Your task to perform on an android device: Go to privacy settings Image 0: 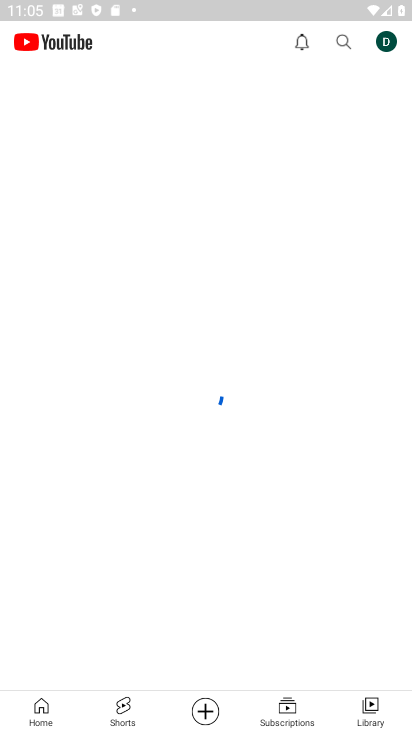
Step 0: press home button
Your task to perform on an android device: Go to privacy settings Image 1: 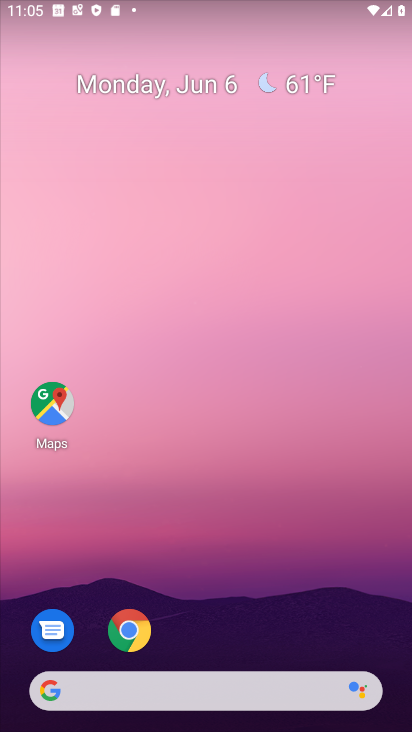
Step 1: drag from (338, 614) to (314, 199)
Your task to perform on an android device: Go to privacy settings Image 2: 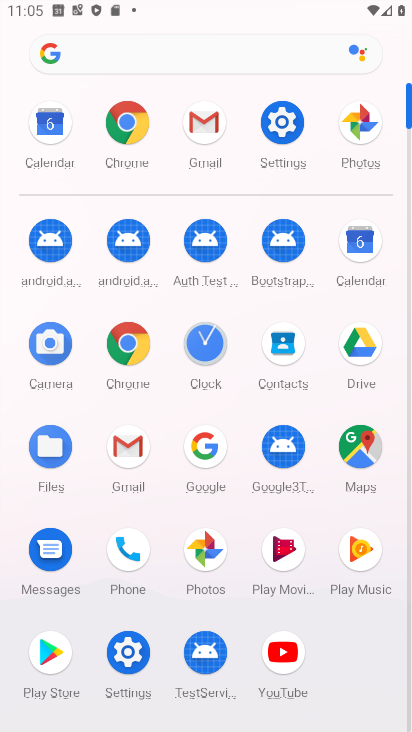
Step 2: click (137, 656)
Your task to perform on an android device: Go to privacy settings Image 3: 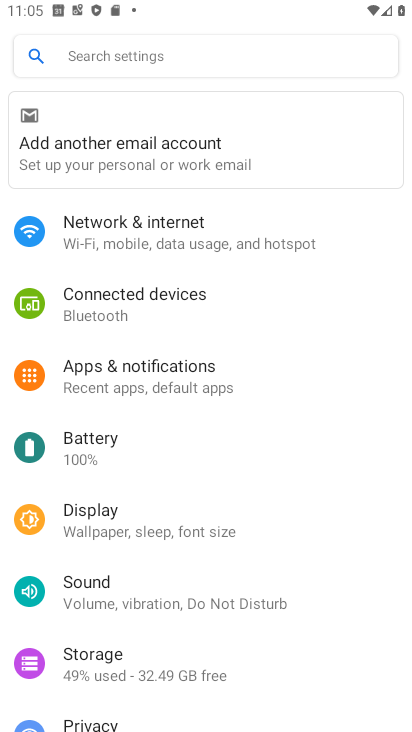
Step 3: drag from (220, 656) to (265, 430)
Your task to perform on an android device: Go to privacy settings Image 4: 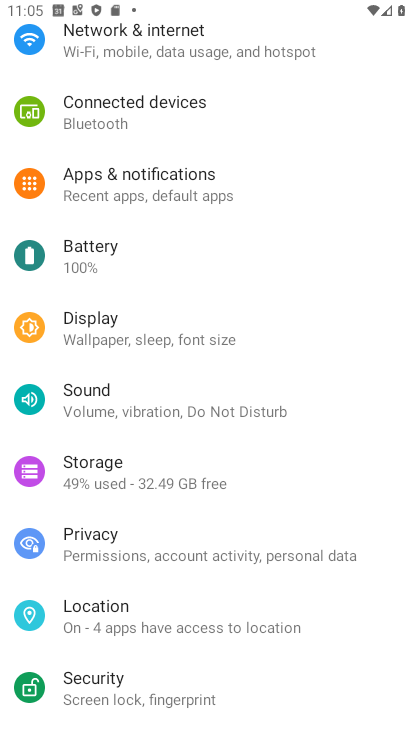
Step 4: click (192, 542)
Your task to perform on an android device: Go to privacy settings Image 5: 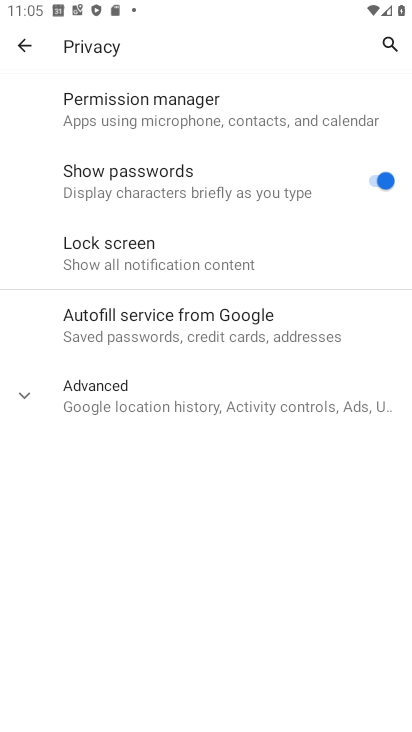
Step 5: task complete